Your task to perform on an android device: Go to Android settings Image 0: 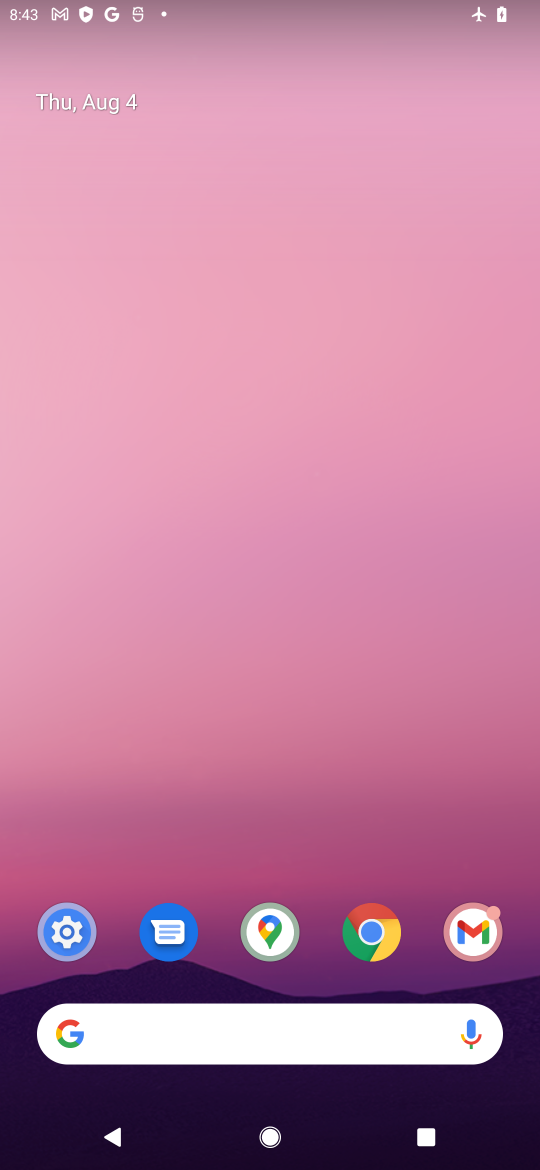
Step 0: click (66, 938)
Your task to perform on an android device: Go to Android settings Image 1: 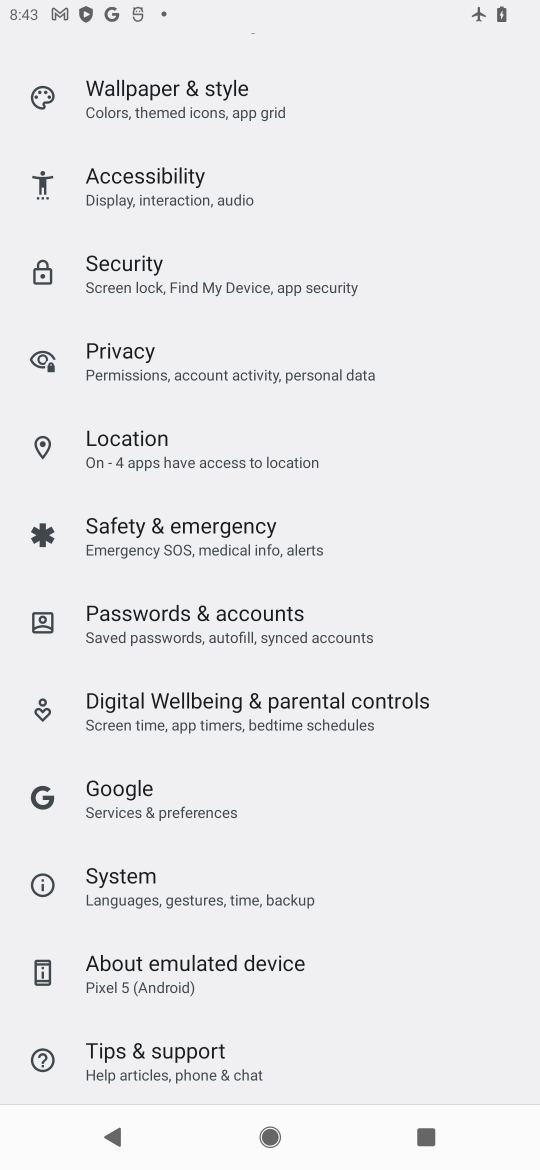
Step 1: click (122, 985)
Your task to perform on an android device: Go to Android settings Image 2: 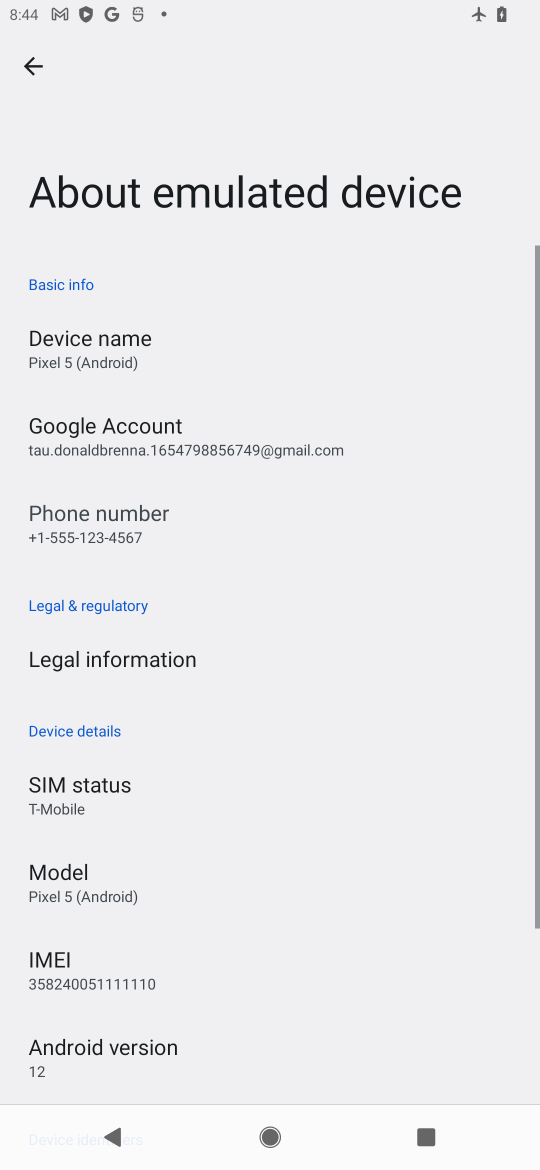
Step 2: click (56, 1060)
Your task to perform on an android device: Go to Android settings Image 3: 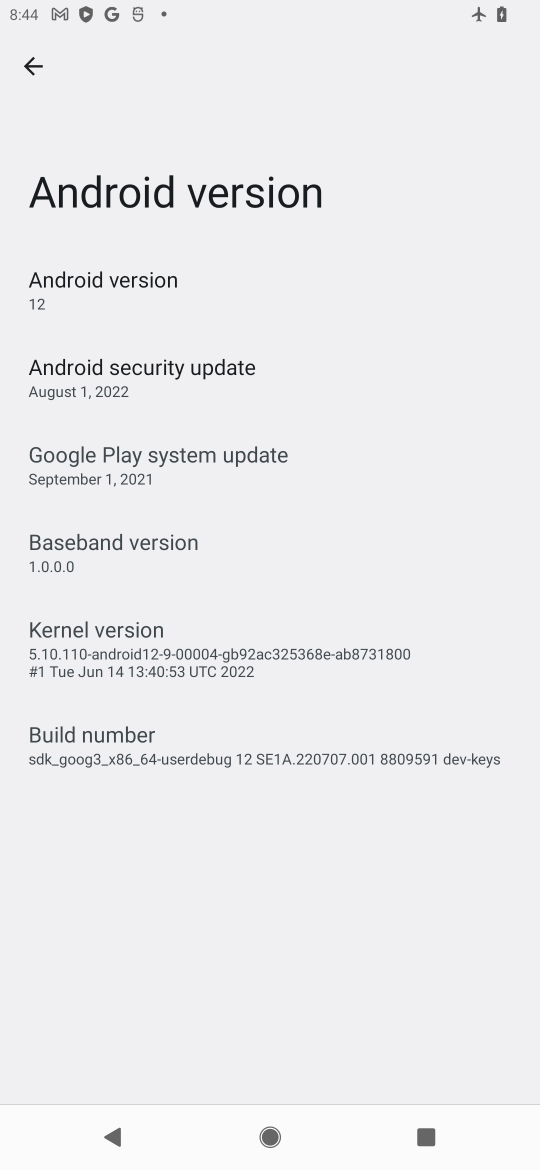
Step 3: task complete